Your task to perform on an android device: toggle airplane mode Image 0: 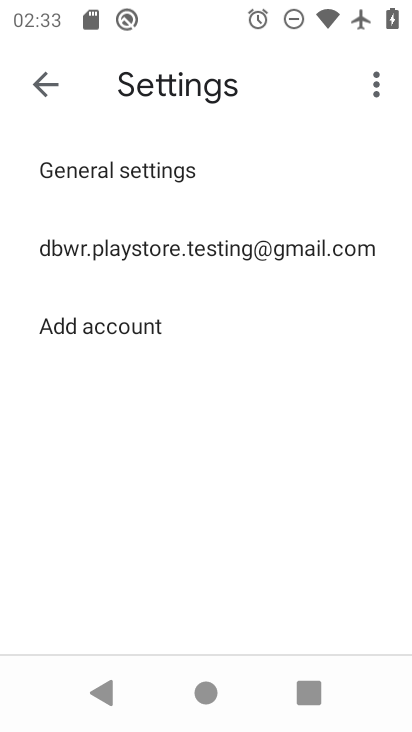
Step 0: press home button
Your task to perform on an android device: toggle airplane mode Image 1: 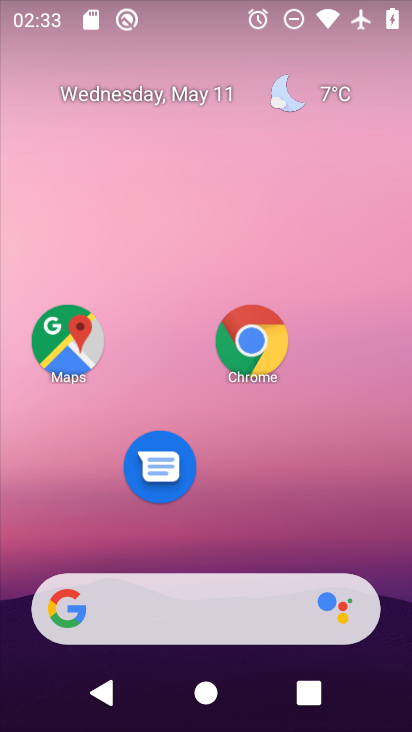
Step 1: drag from (183, 597) to (327, 96)
Your task to perform on an android device: toggle airplane mode Image 2: 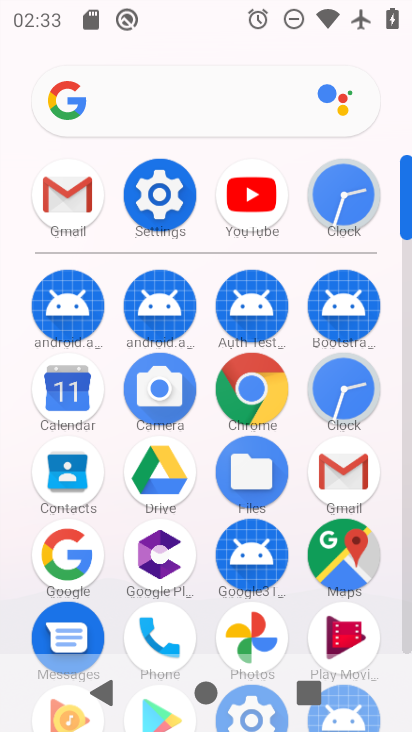
Step 2: click (169, 196)
Your task to perform on an android device: toggle airplane mode Image 3: 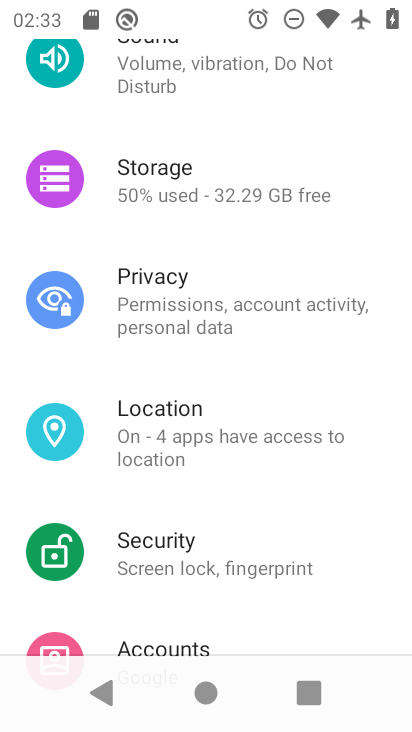
Step 3: drag from (296, 127) to (235, 535)
Your task to perform on an android device: toggle airplane mode Image 4: 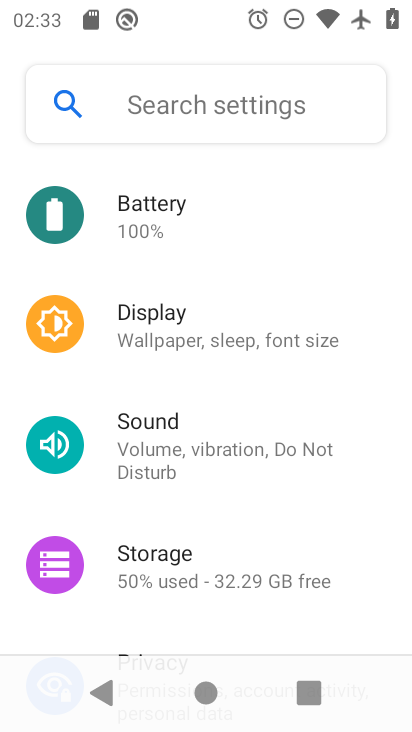
Step 4: drag from (276, 237) to (226, 596)
Your task to perform on an android device: toggle airplane mode Image 5: 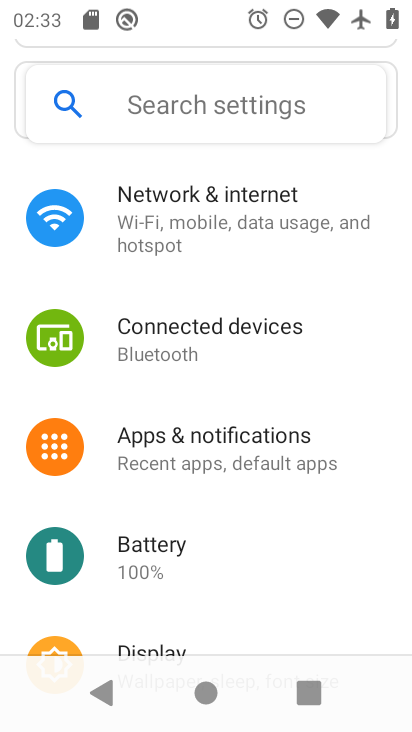
Step 5: click (236, 211)
Your task to perform on an android device: toggle airplane mode Image 6: 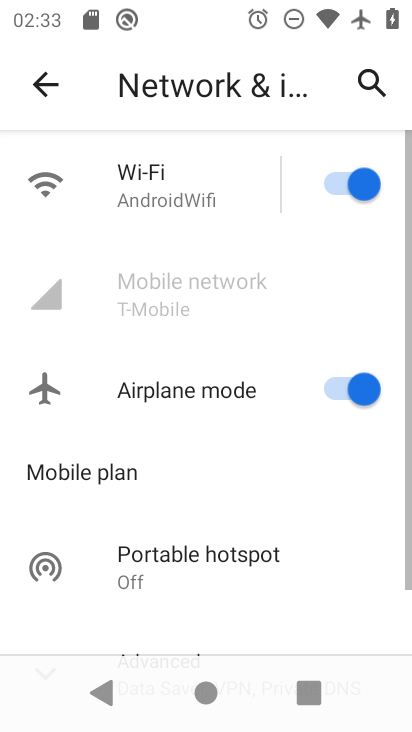
Step 6: click (331, 388)
Your task to perform on an android device: toggle airplane mode Image 7: 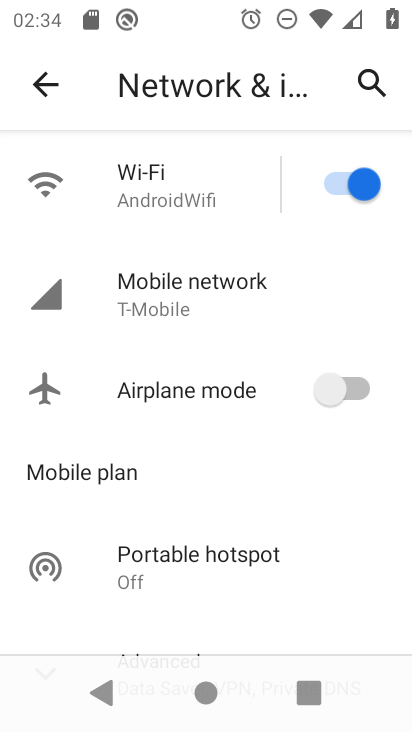
Step 7: task complete